Your task to perform on an android device: When is my next appointment? Image 0: 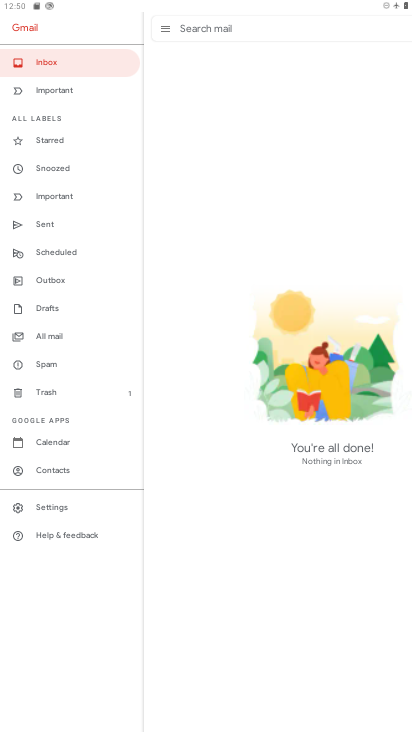
Step 0: press home button
Your task to perform on an android device: When is my next appointment? Image 1: 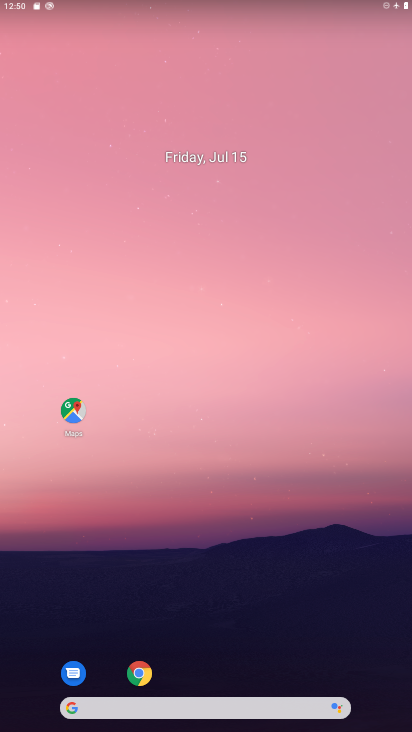
Step 1: drag from (380, 682) to (361, 171)
Your task to perform on an android device: When is my next appointment? Image 2: 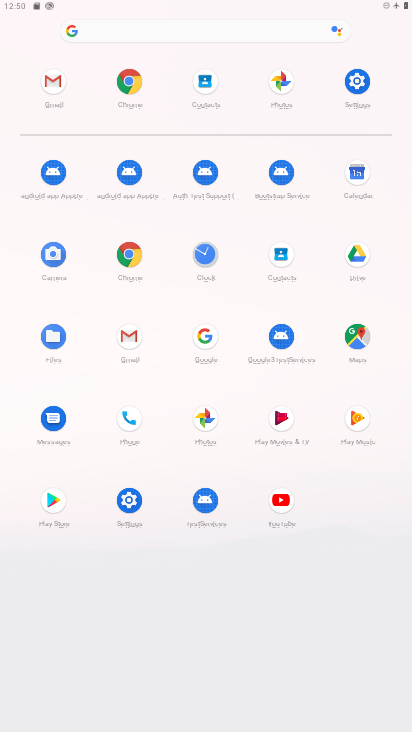
Step 2: click (362, 174)
Your task to perform on an android device: When is my next appointment? Image 3: 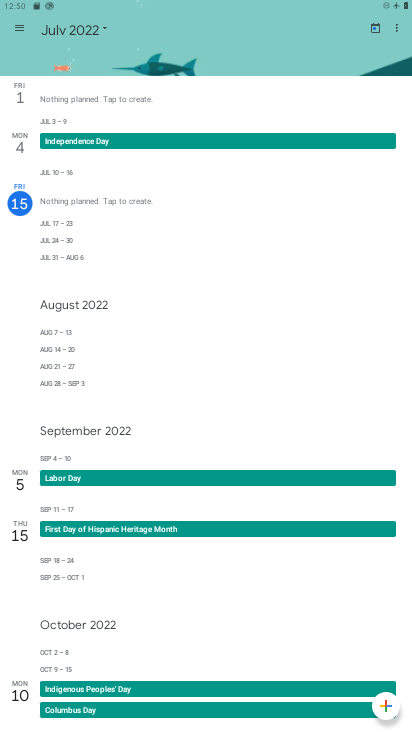
Step 3: click (19, 32)
Your task to perform on an android device: When is my next appointment? Image 4: 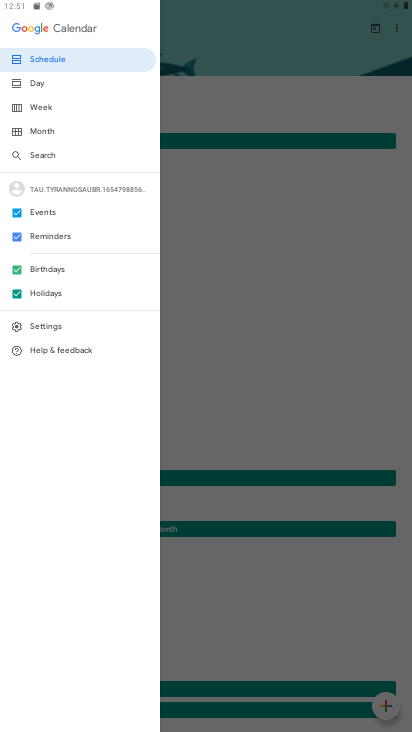
Step 4: click (59, 56)
Your task to perform on an android device: When is my next appointment? Image 5: 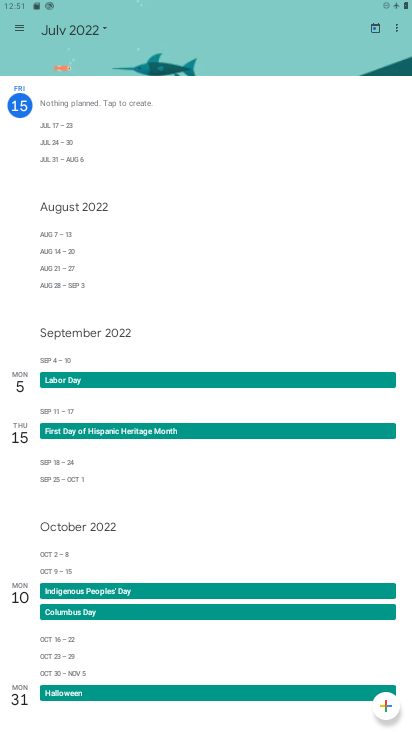
Step 5: task complete